Your task to perform on an android device: What's the weather going to be tomorrow? Image 0: 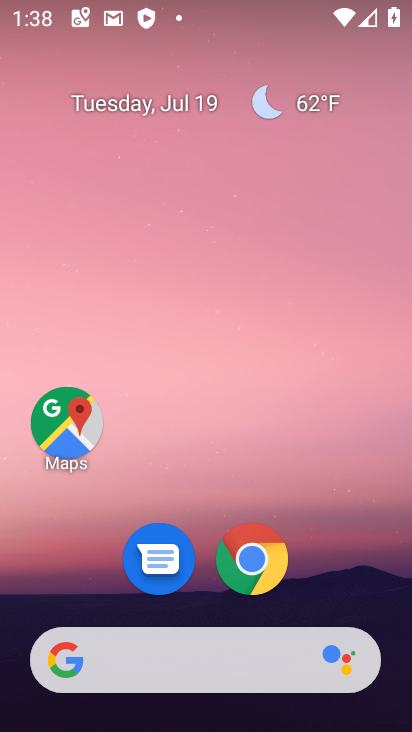
Step 0: drag from (246, 612) to (337, 126)
Your task to perform on an android device: What's the weather going to be tomorrow? Image 1: 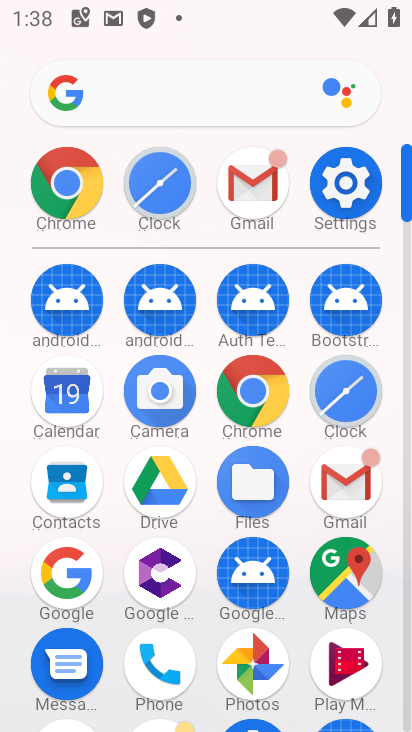
Step 1: click (55, 581)
Your task to perform on an android device: What's the weather going to be tomorrow? Image 2: 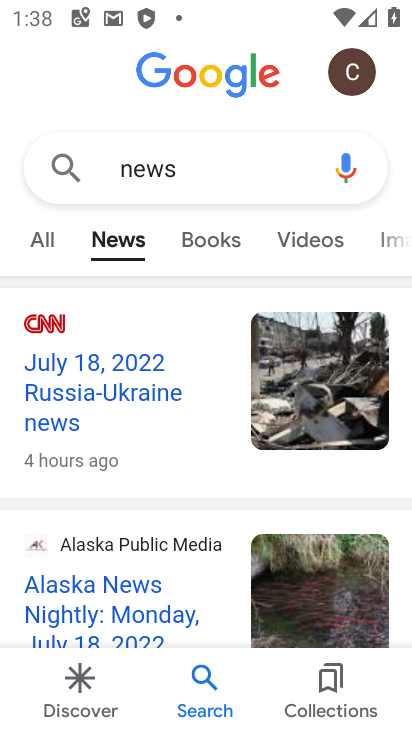
Step 2: click (221, 168)
Your task to perform on an android device: What's the weather going to be tomorrow? Image 3: 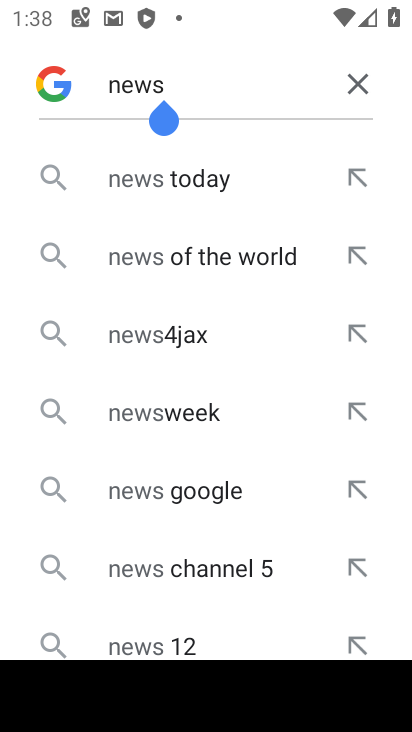
Step 3: click (354, 82)
Your task to perform on an android device: What's the weather going to be tomorrow? Image 4: 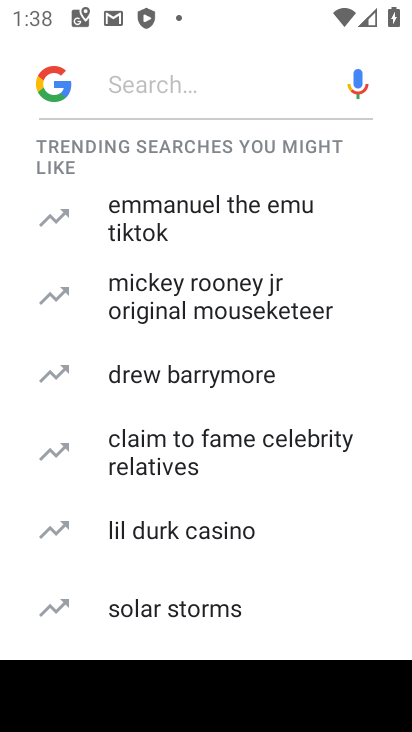
Step 4: type "weather"
Your task to perform on an android device: What's the weather going to be tomorrow? Image 5: 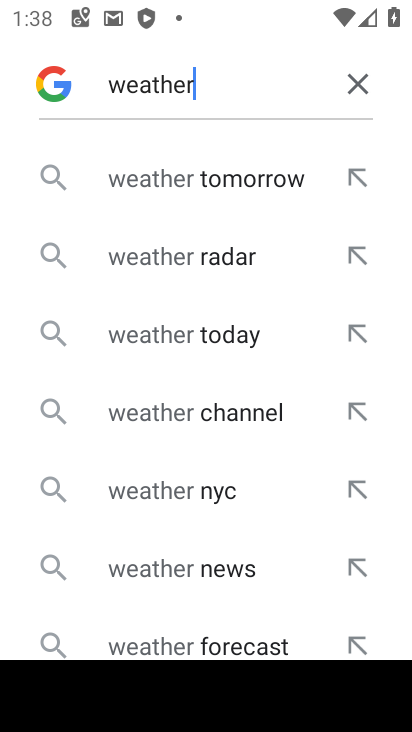
Step 5: click (186, 166)
Your task to perform on an android device: What's the weather going to be tomorrow? Image 6: 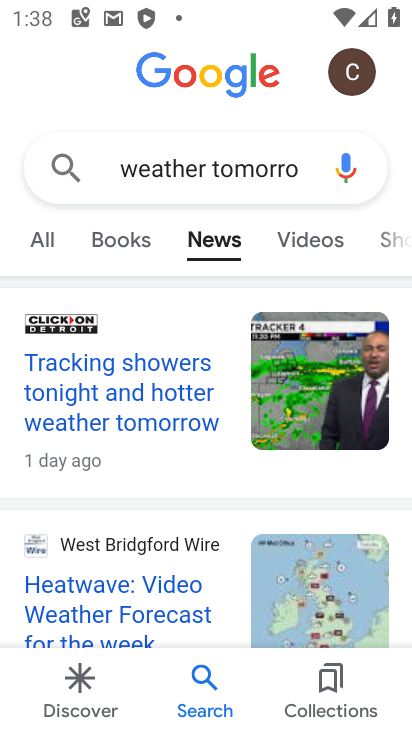
Step 6: click (47, 230)
Your task to perform on an android device: What's the weather going to be tomorrow? Image 7: 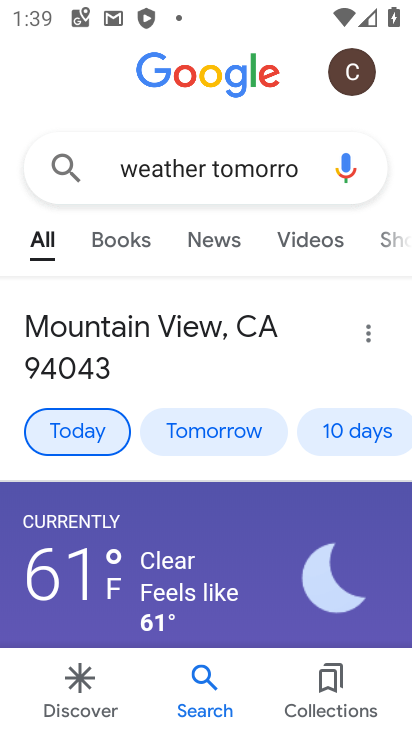
Step 7: task complete